Your task to perform on an android device: Go to Amazon Image 0: 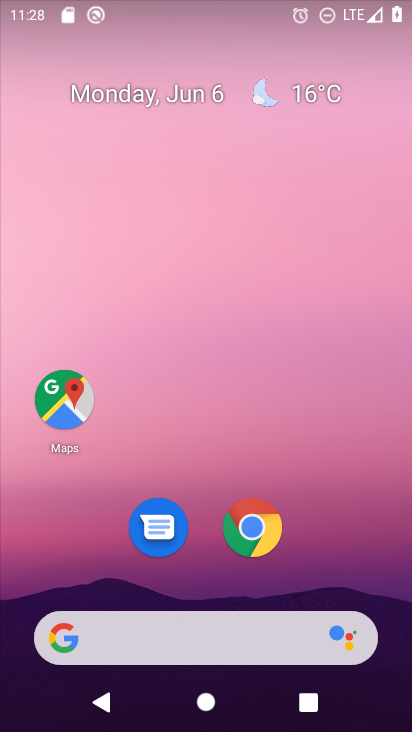
Step 0: drag from (363, 563) to (366, 132)
Your task to perform on an android device: Go to Amazon Image 1: 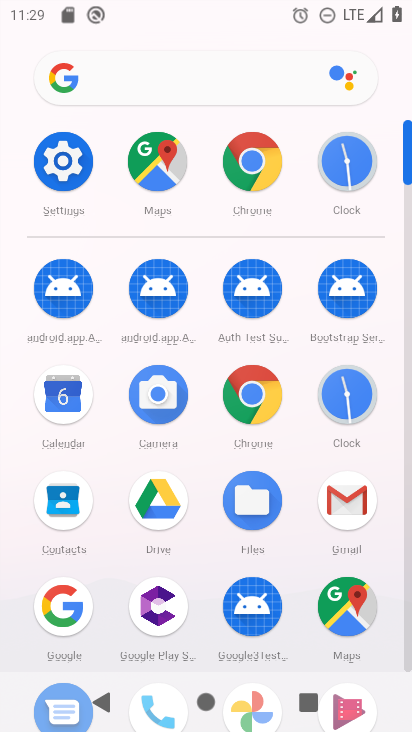
Step 1: click (257, 389)
Your task to perform on an android device: Go to Amazon Image 2: 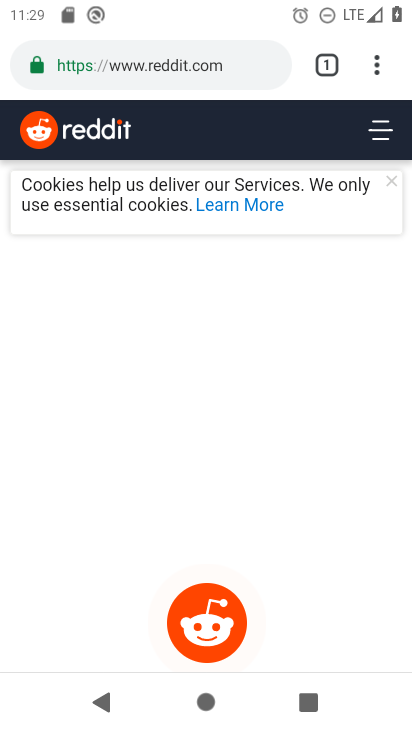
Step 2: click (218, 74)
Your task to perform on an android device: Go to Amazon Image 3: 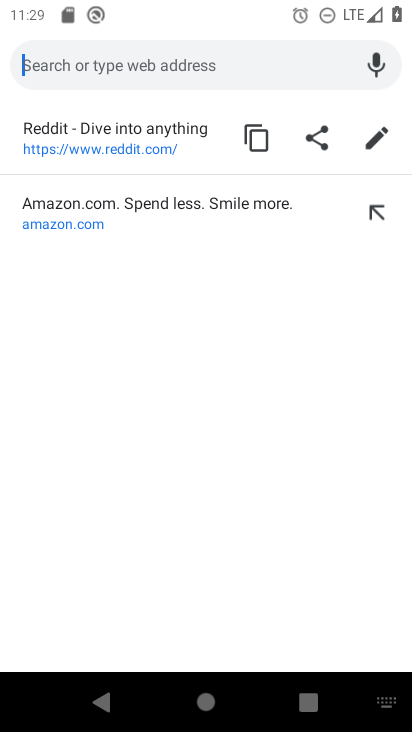
Step 3: type "amazon"
Your task to perform on an android device: Go to Amazon Image 4: 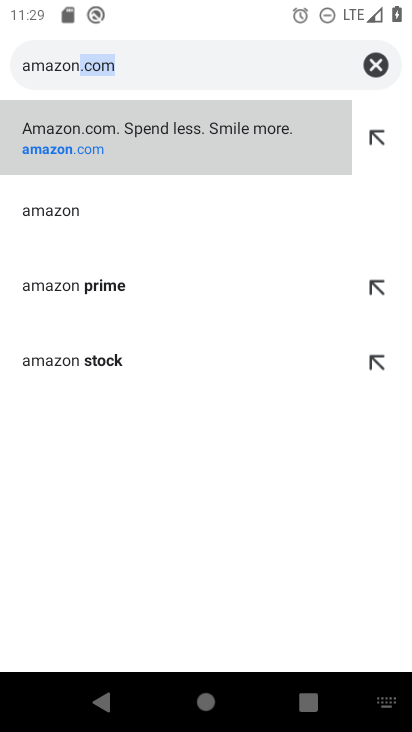
Step 4: click (211, 133)
Your task to perform on an android device: Go to Amazon Image 5: 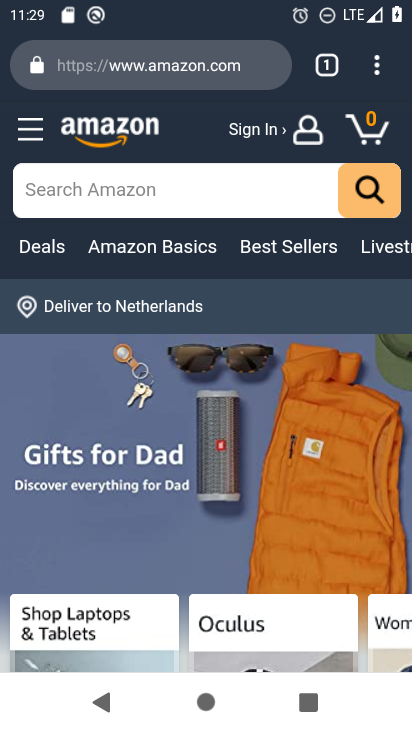
Step 5: task complete